Your task to perform on an android device: Open calendar and show me the second week of next month Image 0: 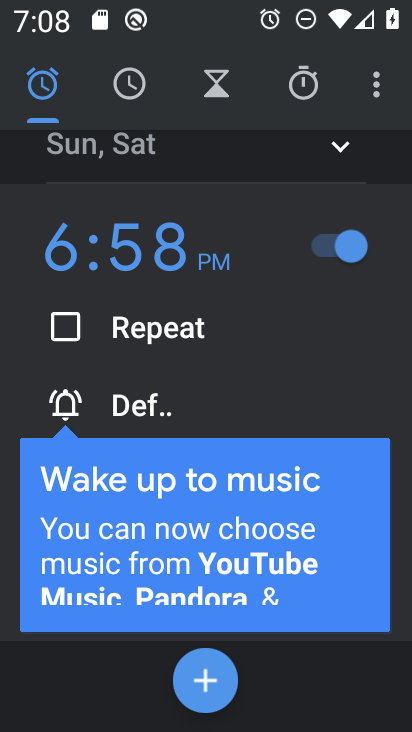
Step 0: press home button
Your task to perform on an android device: Open calendar and show me the second week of next month Image 1: 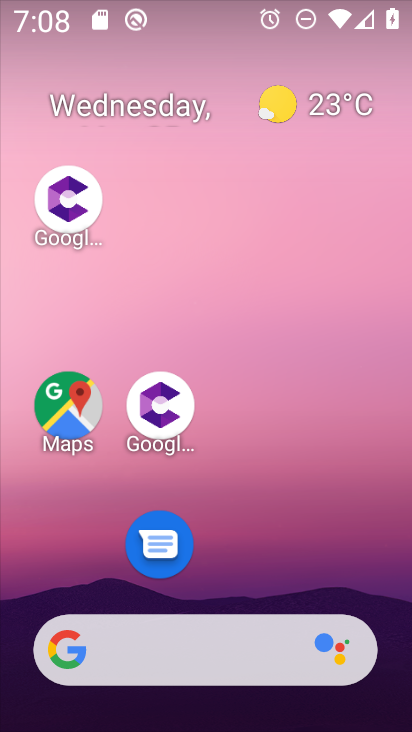
Step 1: drag from (272, 545) to (185, 5)
Your task to perform on an android device: Open calendar and show me the second week of next month Image 2: 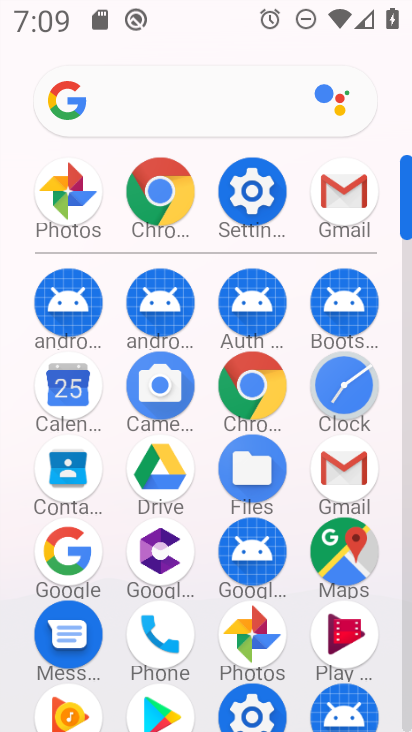
Step 2: click (74, 381)
Your task to perform on an android device: Open calendar and show me the second week of next month Image 3: 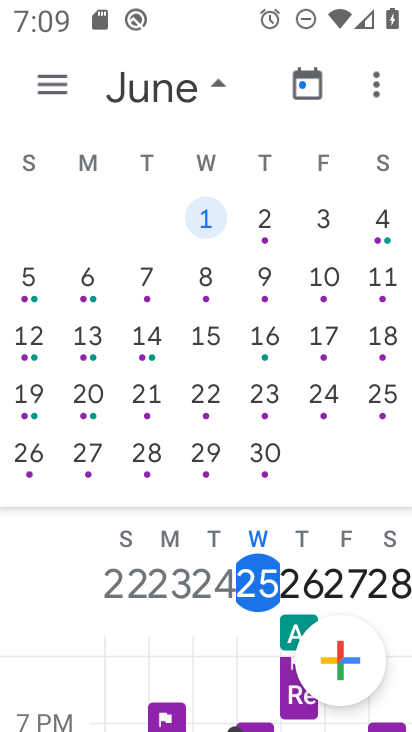
Step 3: click (78, 280)
Your task to perform on an android device: Open calendar and show me the second week of next month Image 4: 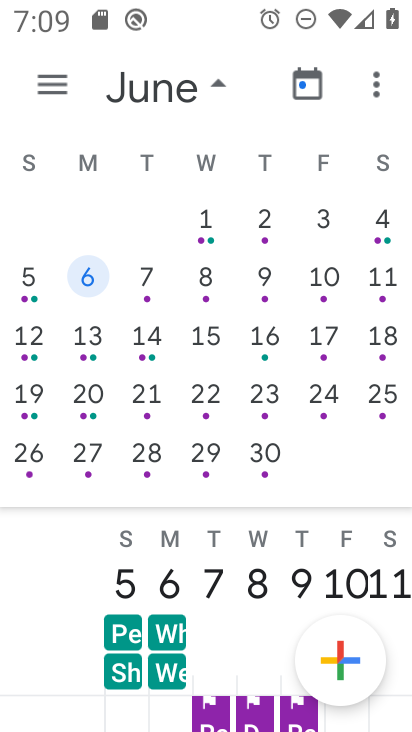
Step 4: task complete